Your task to perform on an android device: add a contact in the contacts app Image 0: 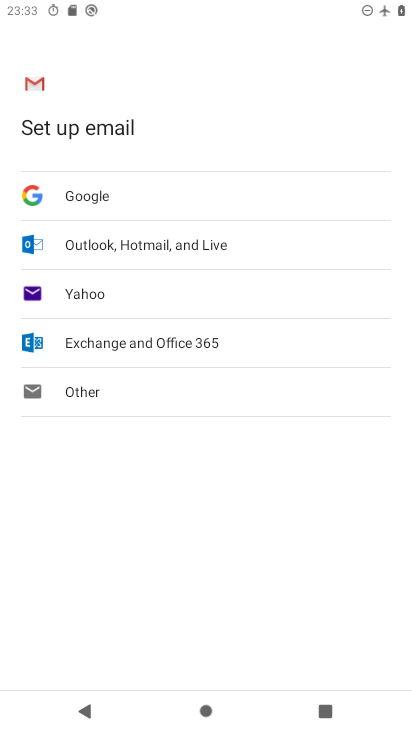
Step 0: press back button
Your task to perform on an android device: add a contact in the contacts app Image 1: 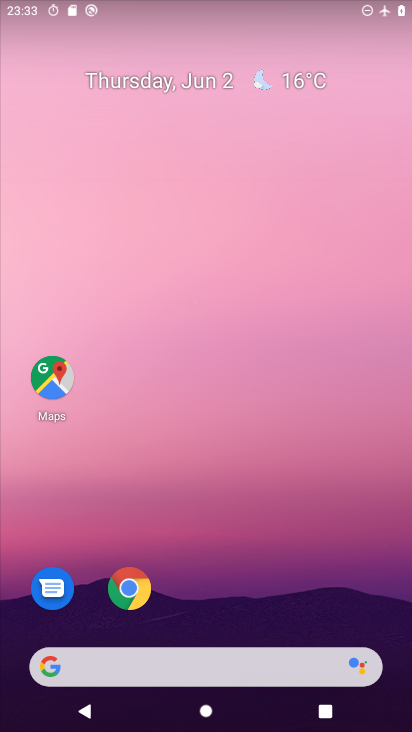
Step 1: drag from (241, 563) to (255, 134)
Your task to perform on an android device: add a contact in the contacts app Image 2: 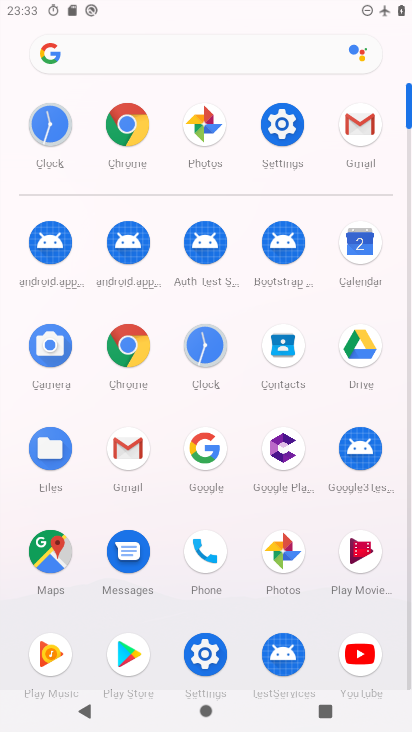
Step 2: click (292, 348)
Your task to perform on an android device: add a contact in the contacts app Image 3: 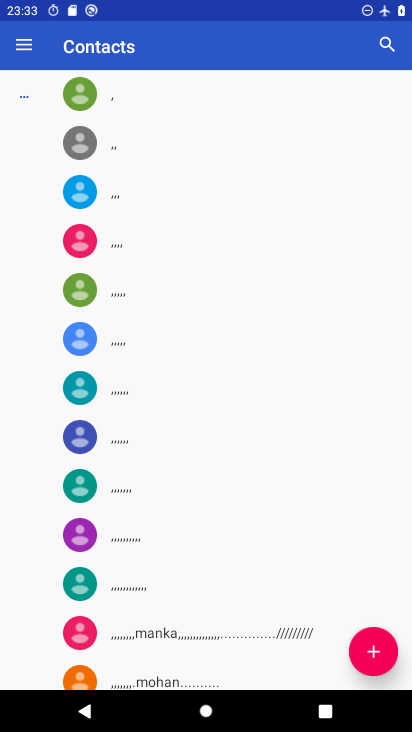
Step 3: click (386, 648)
Your task to perform on an android device: add a contact in the contacts app Image 4: 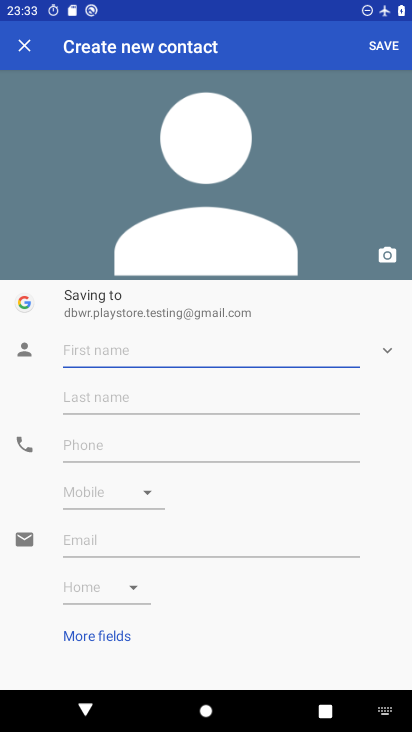
Step 4: click (99, 350)
Your task to perform on an android device: add a contact in the contacts app Image 5: 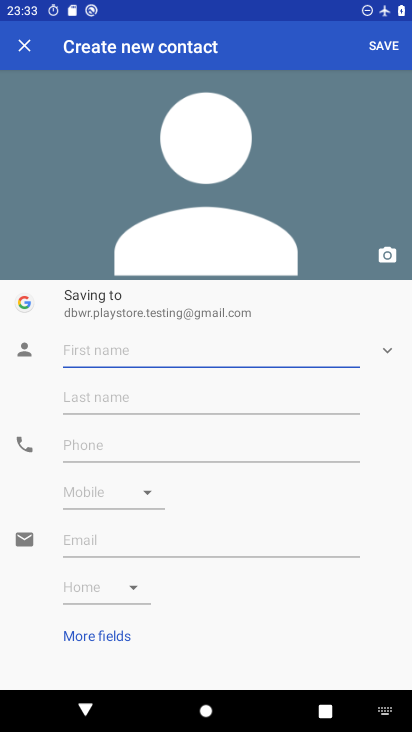
Step 5: type "ggnb"
Your task to perform on an android device: add a contact in the contacts app Image 6: 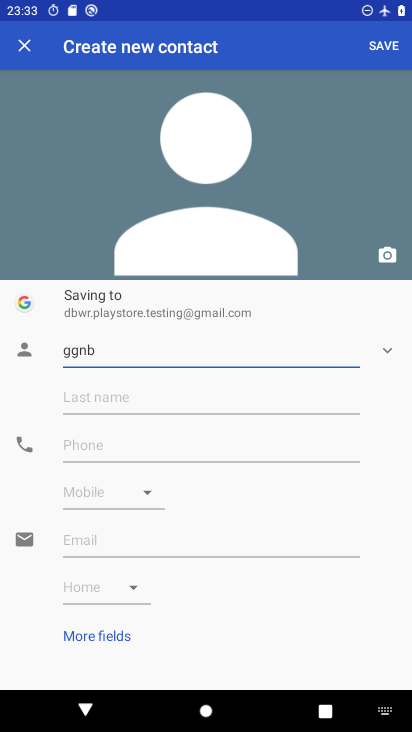
Step 6: click (86, 441)
Your task to perform on an android device: add a contact in the contacts app Image 7: 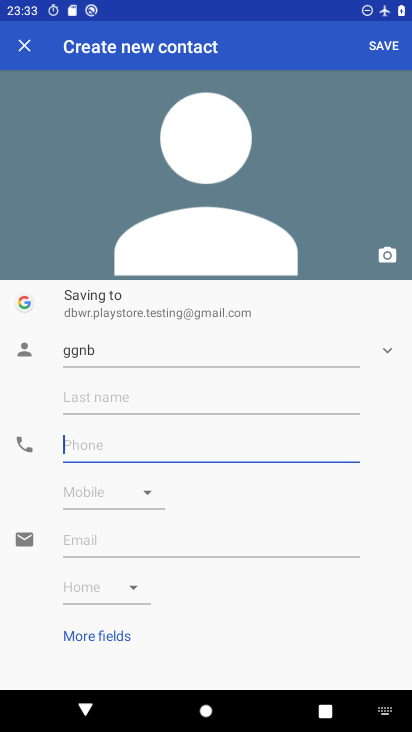
Step 7: type "7878"
Your task to perform on an android device: add a contact in the contacts app Image 8: 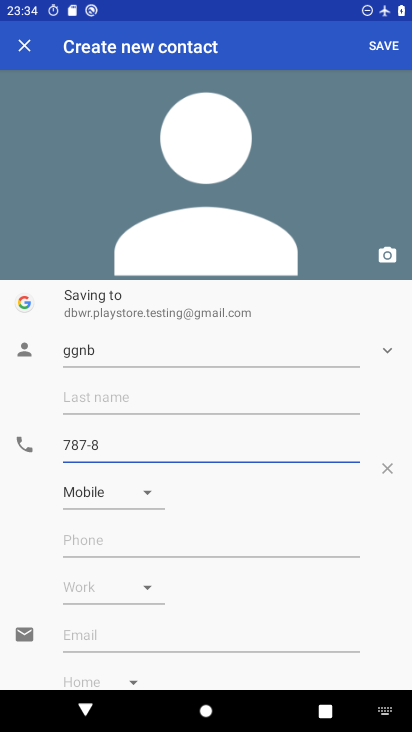
Step 8: click (378, 45)
Your task to perform on an android device: add a contact in the contacts app Image 9: 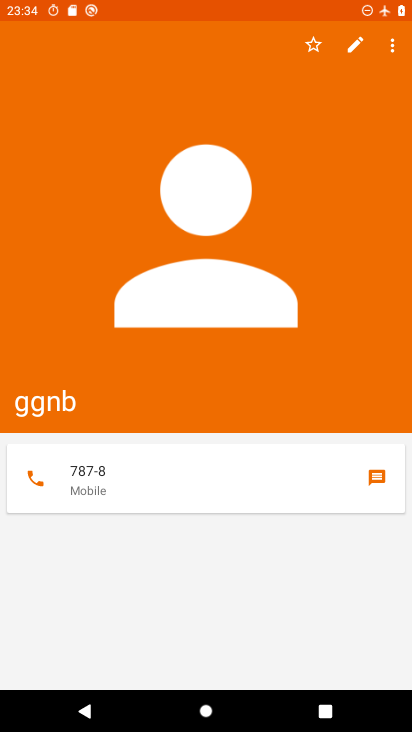
Step 9: task complete